Your task to perform on an android device: Go to calendar. Show me events next week Image 0: 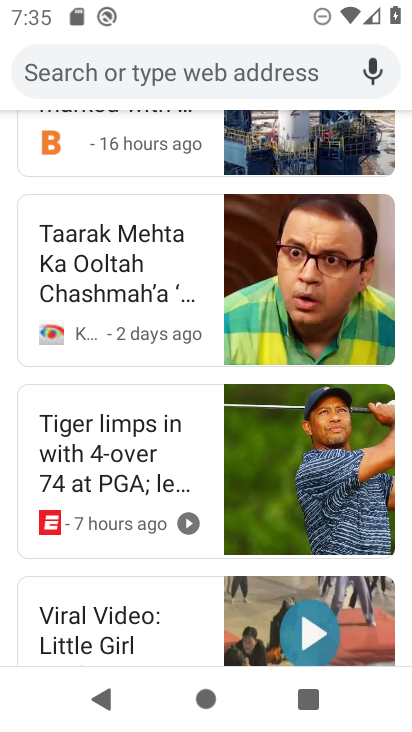
Step 0: press home button
Your task to perform on an android device: Go to calendar. Show me events next week Image 1: 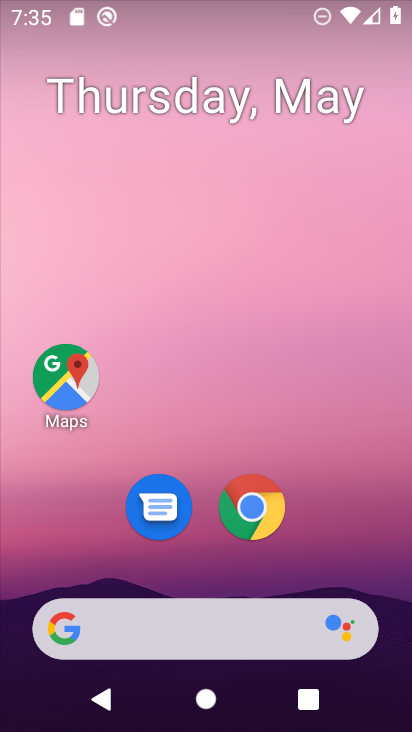
Step 1: drag from (367, 456) to (318, 14)
Your task to perform on an android device: Go to calendar. Show me events next week Image 2: 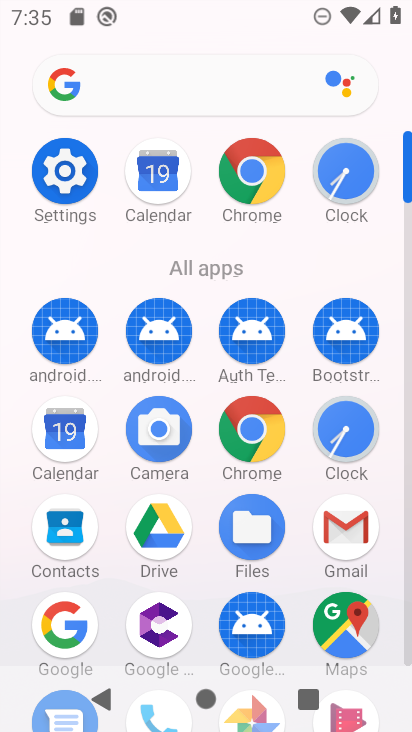
Step 2: click (68, 441)
Your task to perform on an android device: Go to calendar. Show me events next week Image 3: 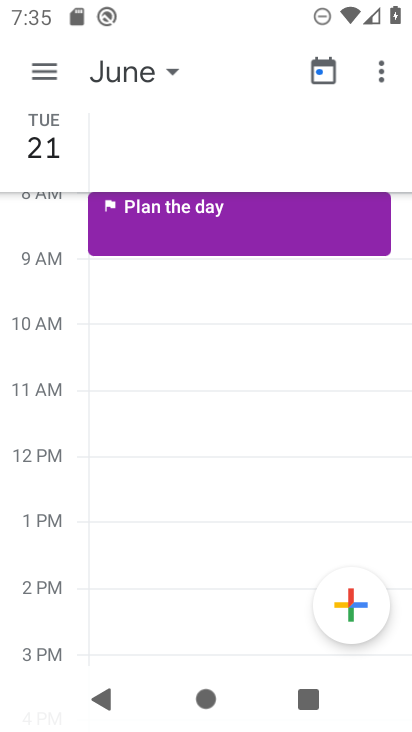
Step 3: click (149, 75)
Your task to perform on an android device: Go to calendar. Show me events next week Image 4: 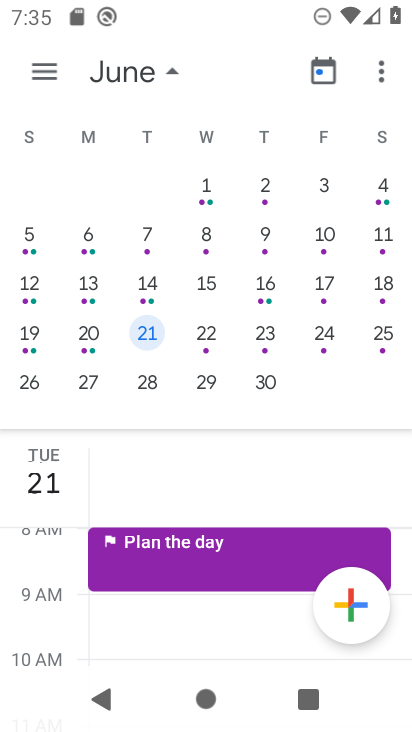
Step 4: task complete